Your task to perform on an android device: Search for Italian restaurants on Maps Image 0: 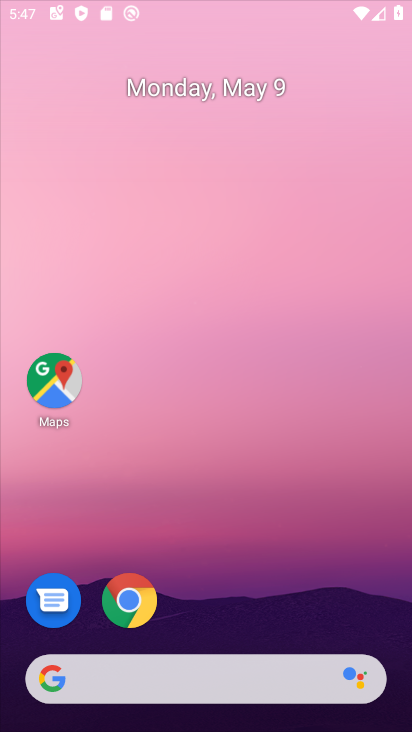
Step 0: drag from (261, 630) to (284, 24)
Your task to perform on an android device: Search for Italian restaurants on Maps Image 1: 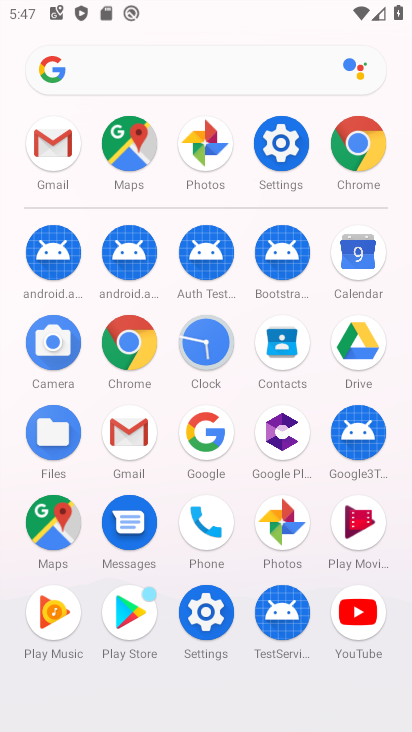
Step 1: click (280, 156)
Your task to perform on an android device: Search for Italian restaurants on Maps Image 2: 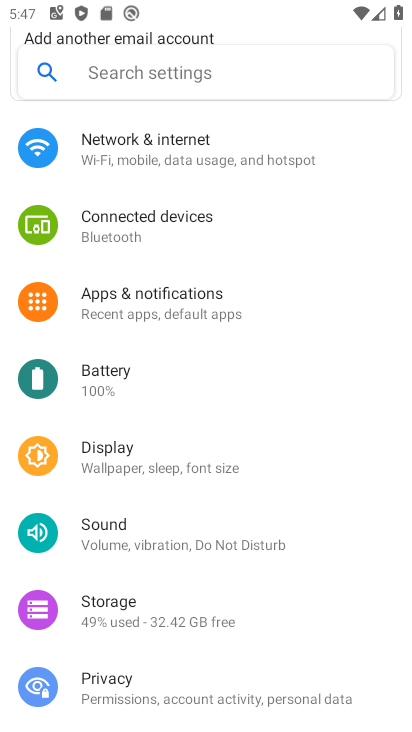
Step 2: click (183, 302)
Your task to perform on an android device: Search for Italian restaurants on Maps Image 3: 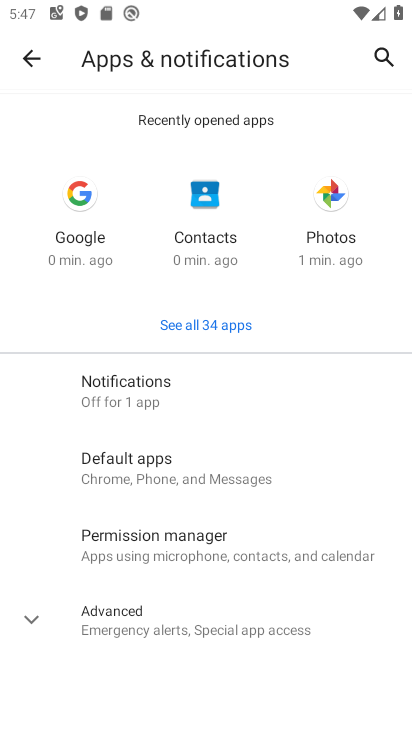
Step 3: press home button
Your task to perform on an android device: Search for Italian restaurants on Maps Image 4: 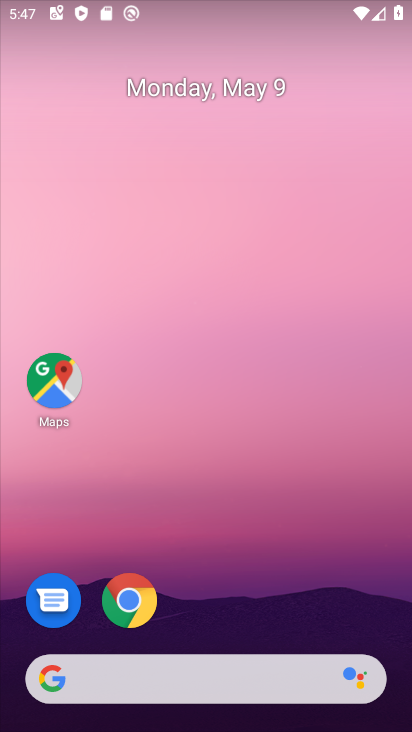
Step 4: drag from (203, 604) to (229, 19)
Your task to perform on an android device: Search for Italian restaurants on Maps Image 5: 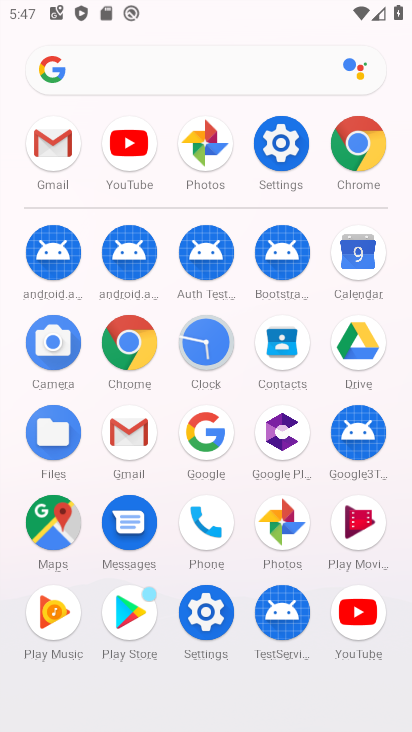
Step 5: click (38, 516)
Your task to perform on an android device: Search for Italian restaurants on Maps Image 6: 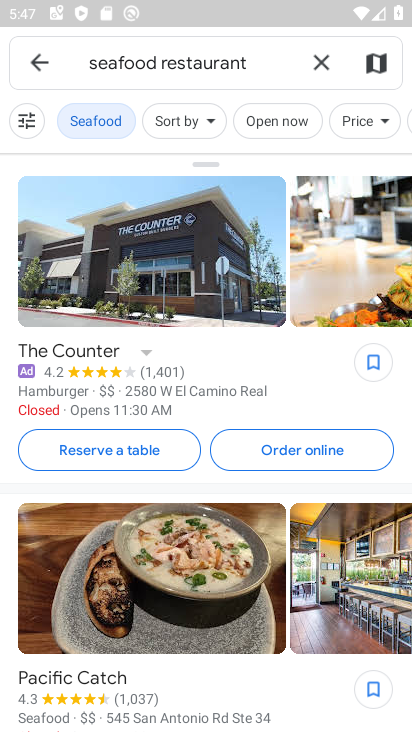
Step 6: click (315, 60)
Your task to perform on an android device: Search for Italian restaurants on Maps Image 7: 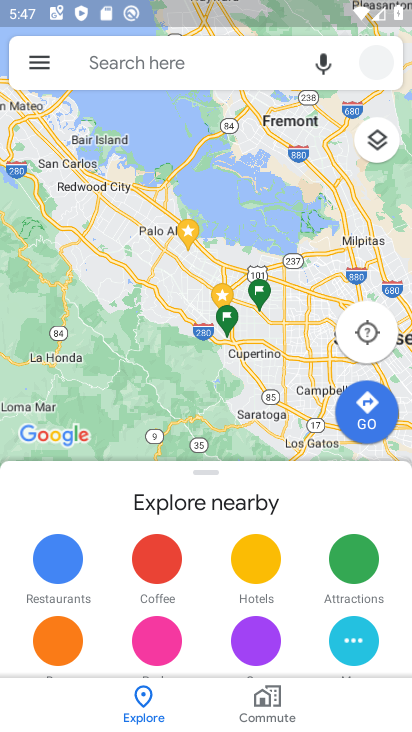
Step 7: click (316, 57)
Your task to perform on an android device: Search for Italian restaurants on Maps Image 8: 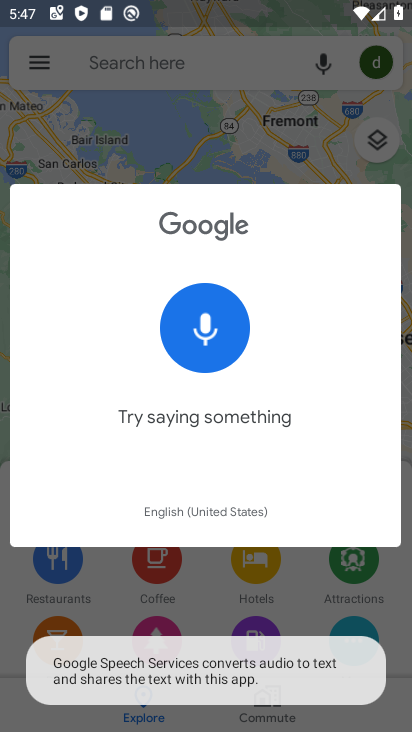
Step 8: click (124, 57)
Your task to perform on an android device: Search for Italian restaurants on Maps Image 9: 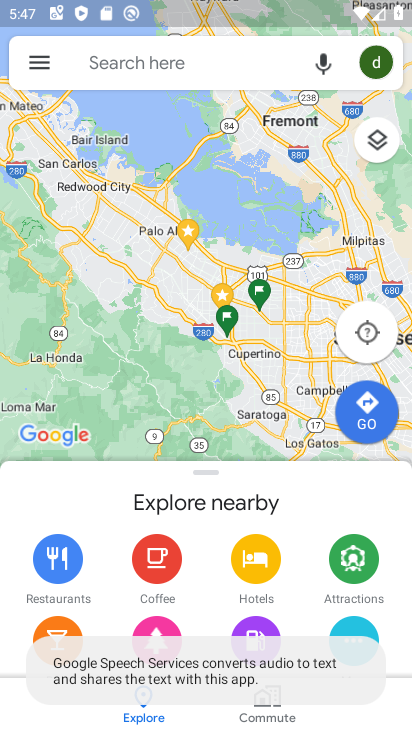
Step 9: click (124, 58)
Your task to perform on an android device: Search for Italian restaurants on Maps Image 10: 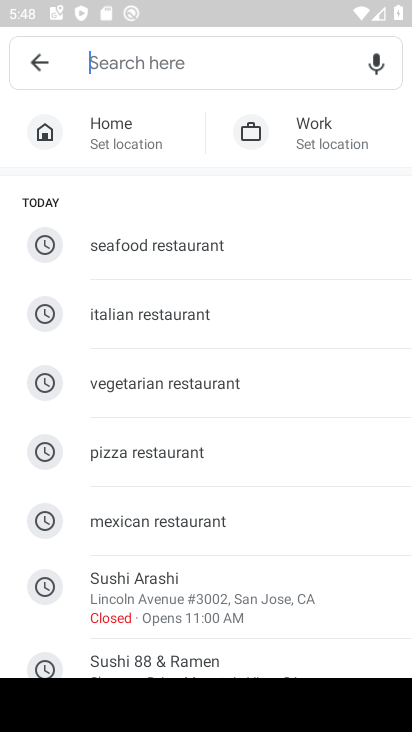
Step 10: type "italian restaurants"
Your task to perform on an android device: Search for Italian restaurants on Maps Image 11: 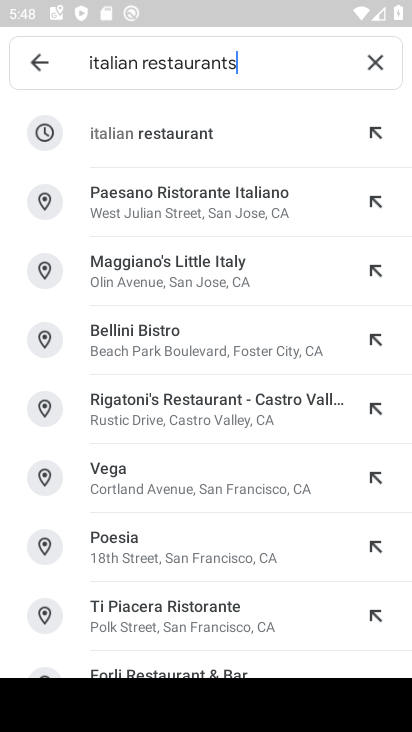
Step 11: click (240, 127)
Your task to perform on an android device: Search for Italian restaurants on Maps Image 12: 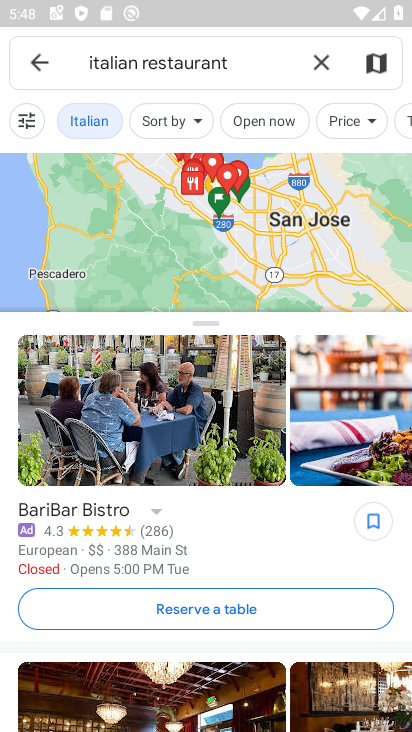
Step 12: task complete